Your task to perform on an android device: Go to Amazon Image 0: 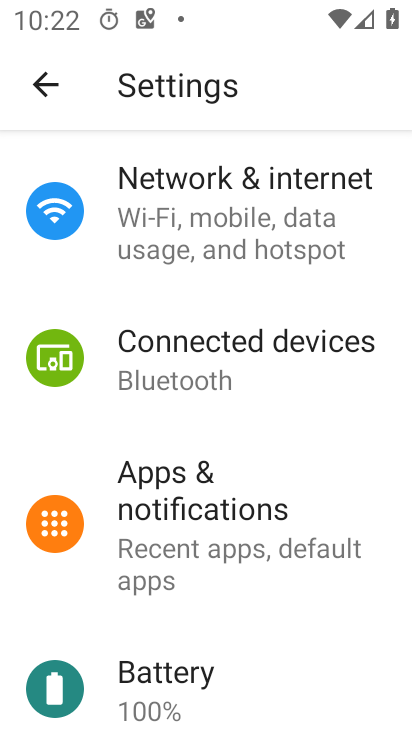
Step 0: press home button
Your task to perform on an android device: Go to Amazon Image 1: 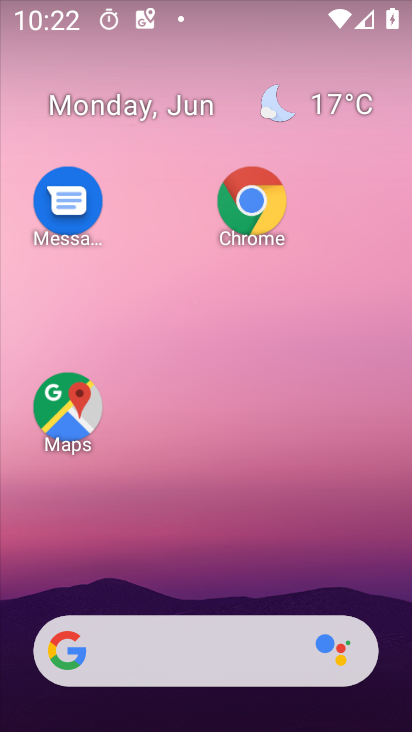
Step 1: click (260, 217)
Your task to perform on an android device: Go to Amazon Image 2: 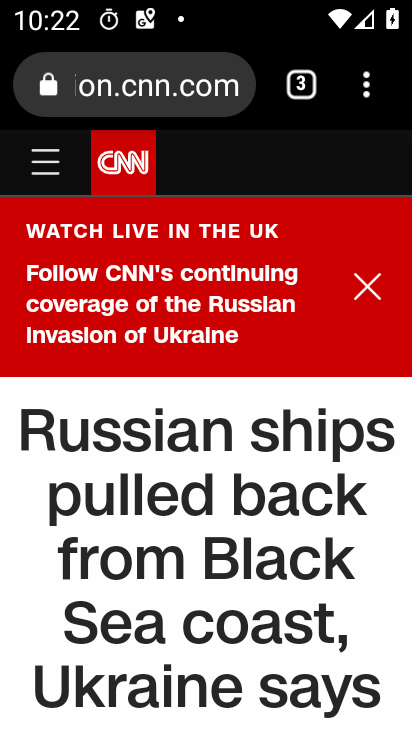
Step 2: click (291, 79)
Your task to perform on an android device: Go to Amazon Image 3: 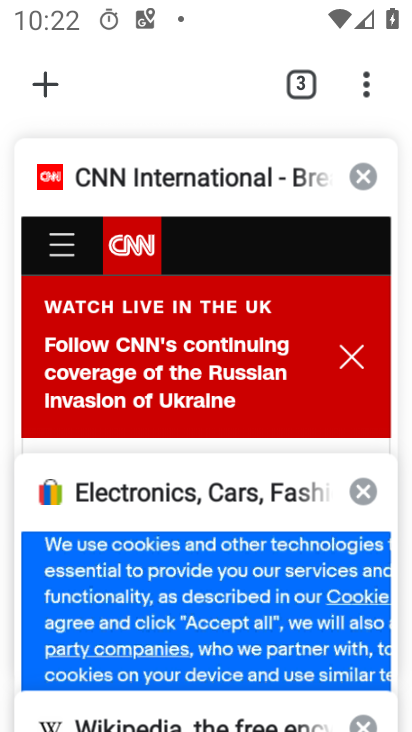
Step 3: click (46, 91)
Your task to perform on an android device: Go to Amazon Image 4: 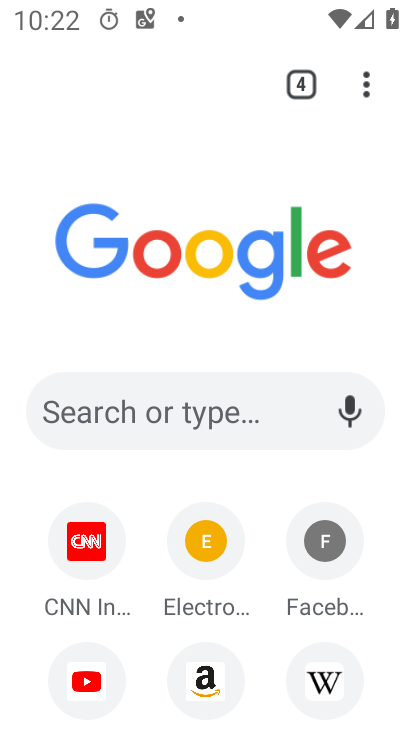
Step 4: click (198, 662)
Your task to perform on an android device: Go to Amazon Image 5: 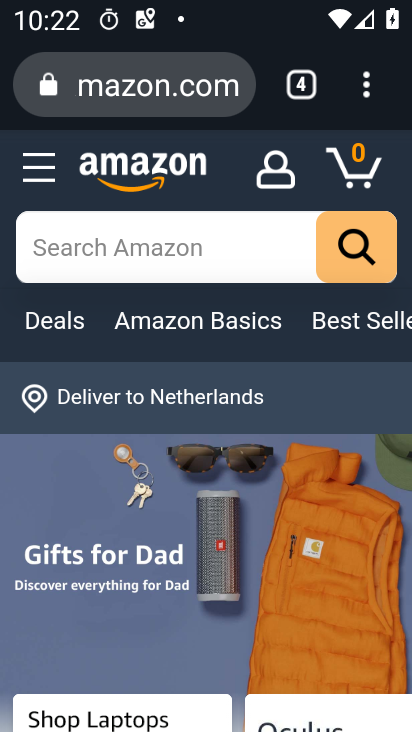
Step 5: task complete